Your task to perform on an android device: change timer sound Image 0: 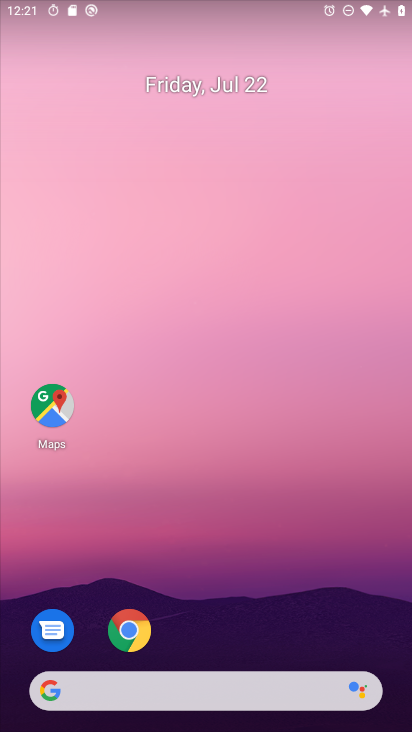
Step 0: press home button
Your task to perform on an android device: change timer sound Image 1: 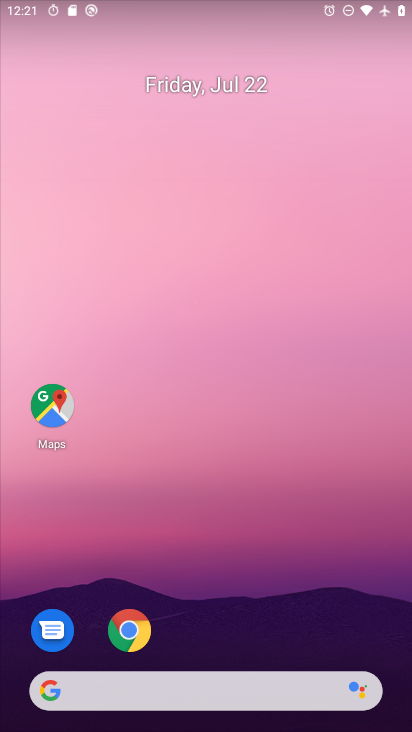
Step 1: drag from (218, 633) to (278, 120)
Your task to perform on an android device: change timer sound Image 2: 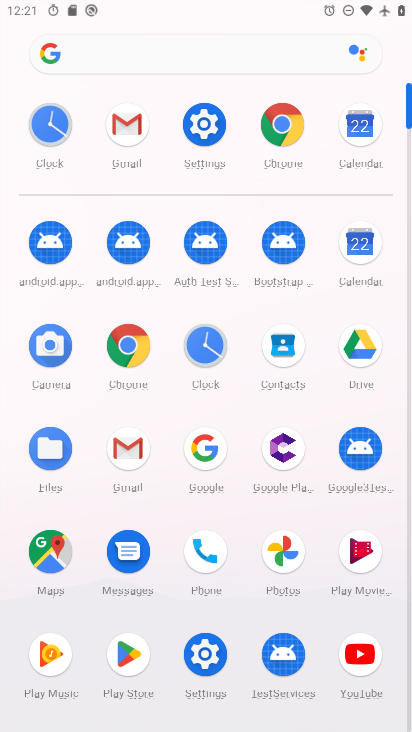
Step 2: click (196, 350)
Your task to perform on an android device: change timer sound Image 3: 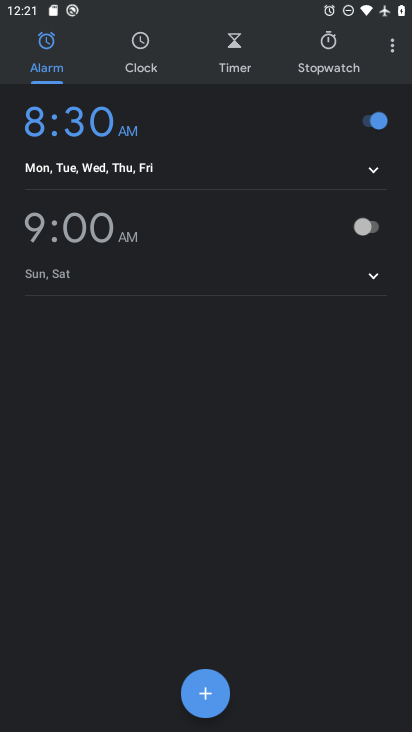
Step 3: click (386, 49)
Your task to perform on an android device: change timer sound Image 4: 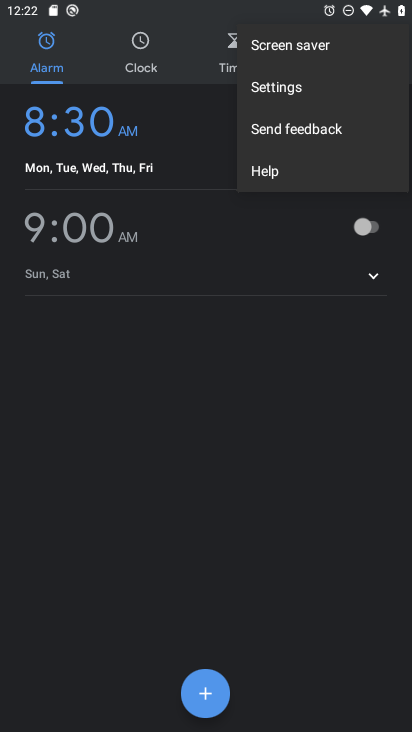
Step 4: click (261, 87)
Your task to perform on an android device: change timer sound Image 5: 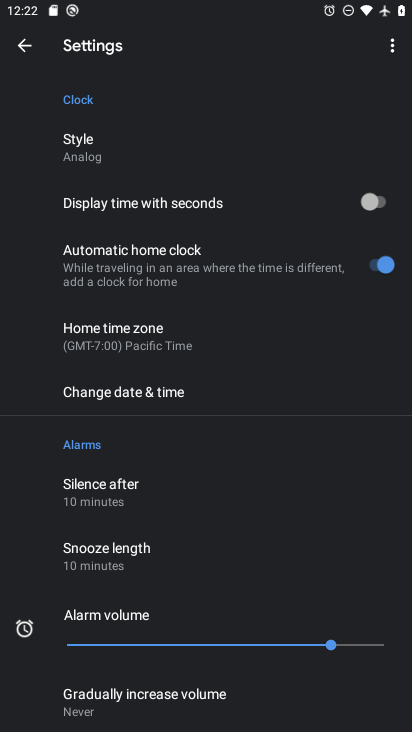
Step 5: drag from (327, 569) to (332, 99)
Your task to perform on an android device: change timer sound Image 6: 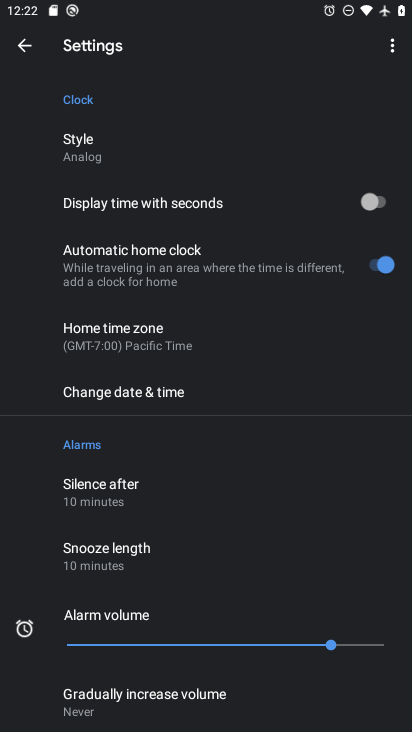
Step 6: drag from (292, 466) to (259, 4)
Your task to perform on an android device: change timer sound Image 7: 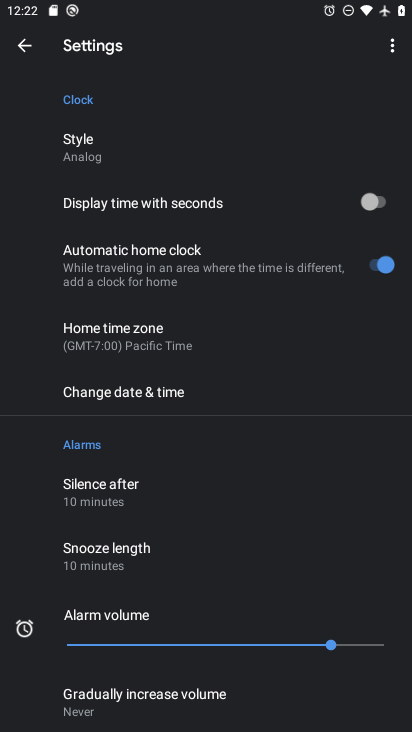
Step 7: drag from (238, 590) to (285, 111)
Your task to perform on an android device: change timer sound Image 8: 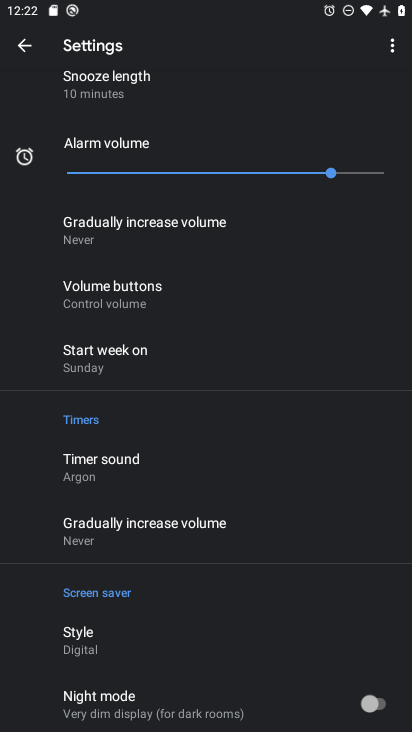
Step 8: click (120, 466)
Your task to perform on an android device: change timer sound Image 9: 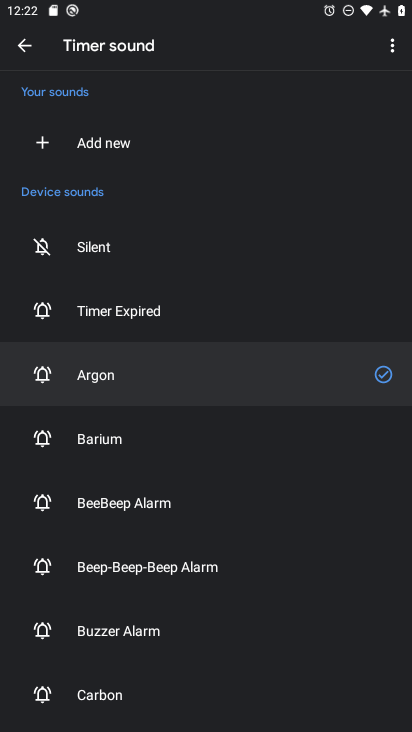
Step 9: click (109, 311)
Your task to perform on an android device: change timer sound Image 10: 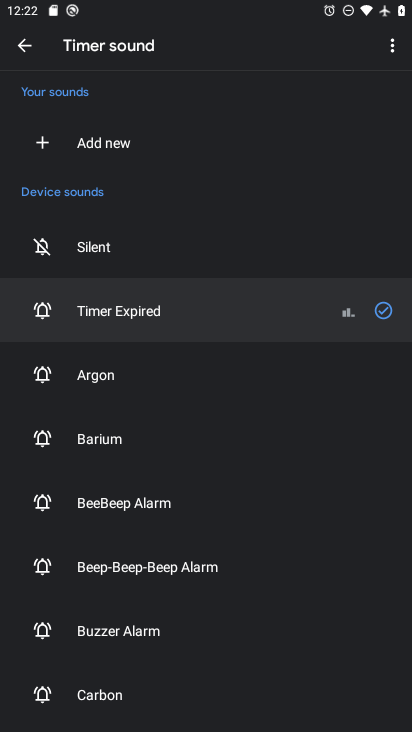
Step 10: task complete